Your task to perform on an android device: Open ESPN.com Image 0: 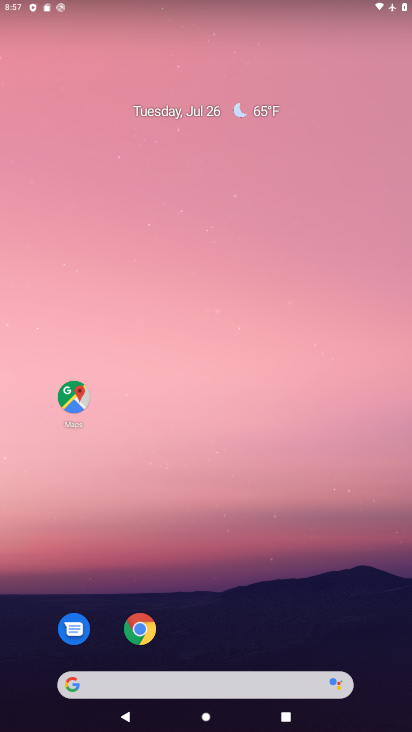
Step 0: drag from (278, 589) to (287, 53)
Your task to perform on an android device: Open ESPN.com Image 1: 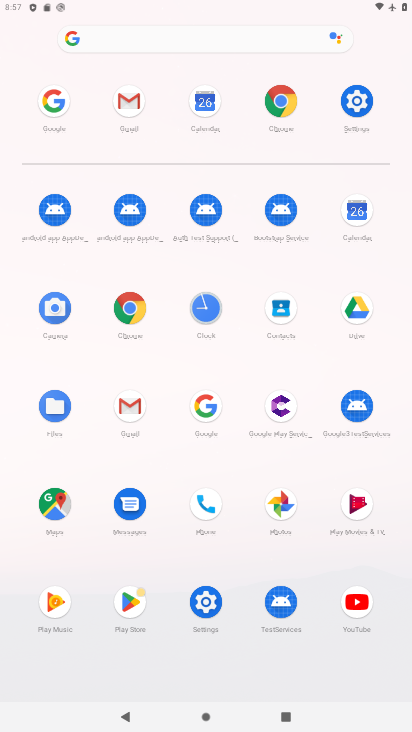
Step 1: click (279, 103)
Your task to perform on an android device: Open ESPN.com Image 2: 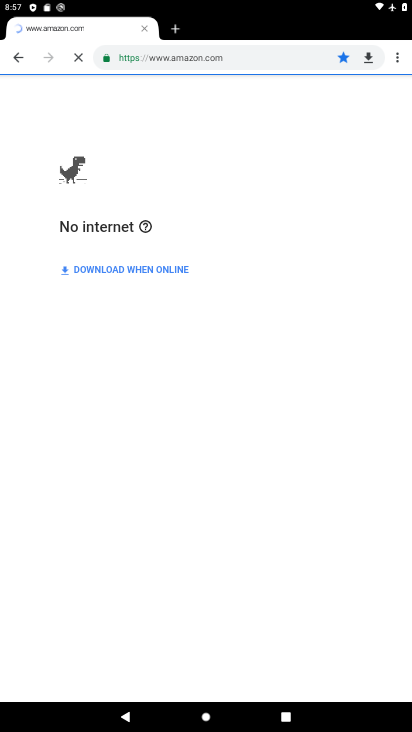
Step 2: click (253, 58)
Your task to perform on an android device: Open ESPN.com Image 3: 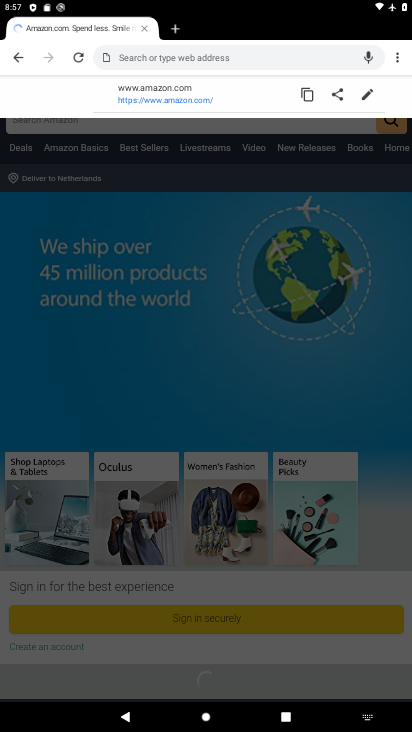
Step 3: type "espn.com"
Your task to perform on an android device: Open ESPN.com Image 4: 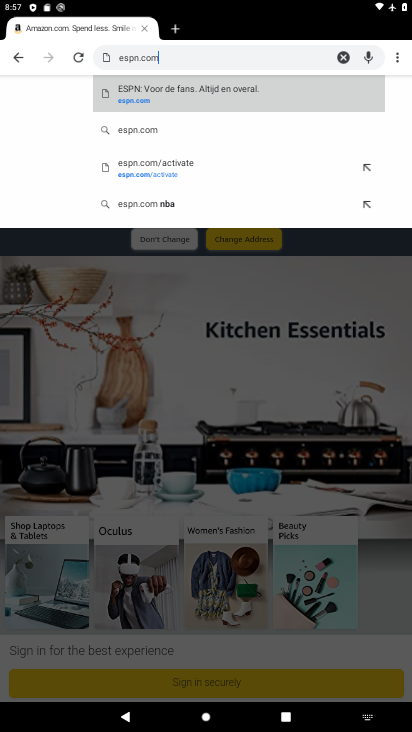
Step 4: click (163, 116)
Your task to perform on an android device: Open ESPN.com Image 5: 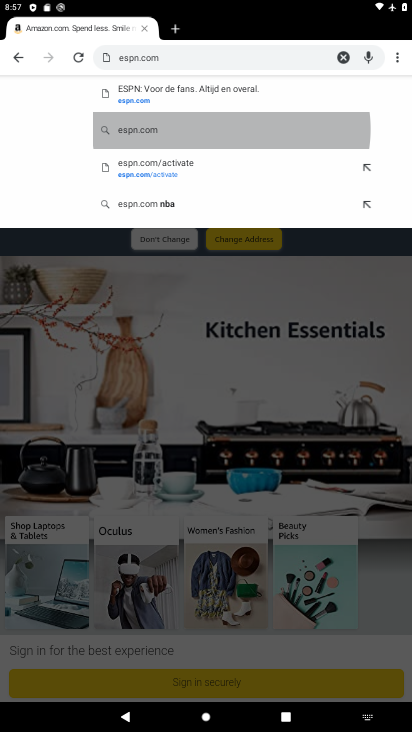
Step 5: click (166, 96)
Your task to perform on an android device: Open ESPN.com Image 6: 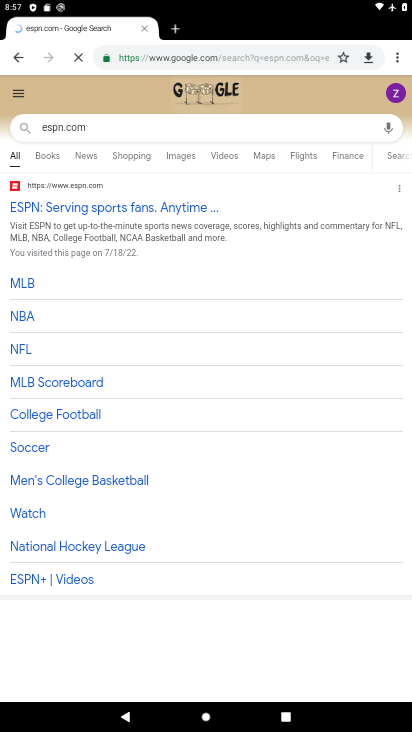
Step 6: click (163, 215)
Your task to perform on an android device: Open ESPN.com Image 7: 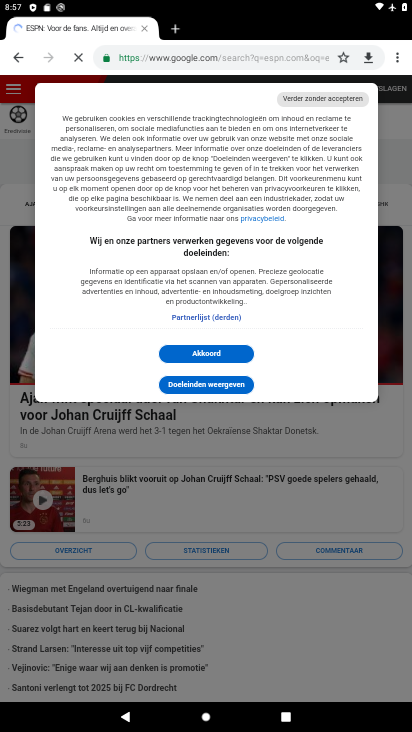
Step 7: task complete